Your task to perform on an android device: Open Google Maps Image 0: 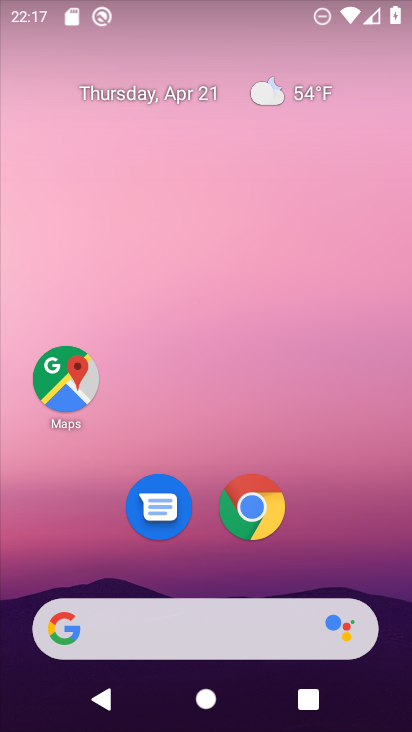
Step 0: click (61, 381)
Your task to perform on an android device: Open Google Maps Image 1: 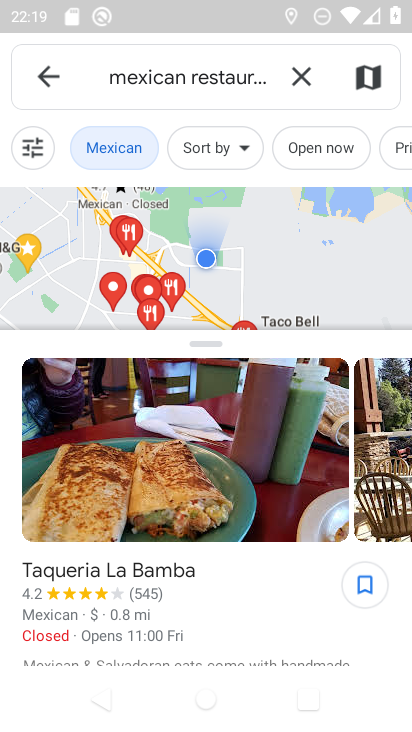
Step 1: click (295, 69)
Your task to perform on an android device: Open Google Maps Image 2: 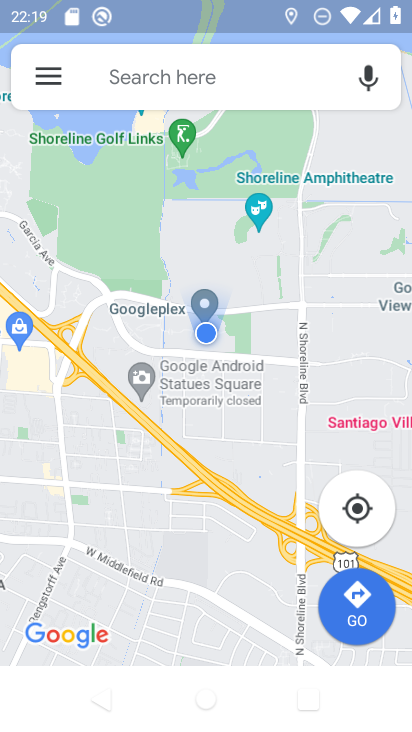
Step 2: task complete